Your task to perform on an android device: open app "Skype" (install if not already installed) Image 0: 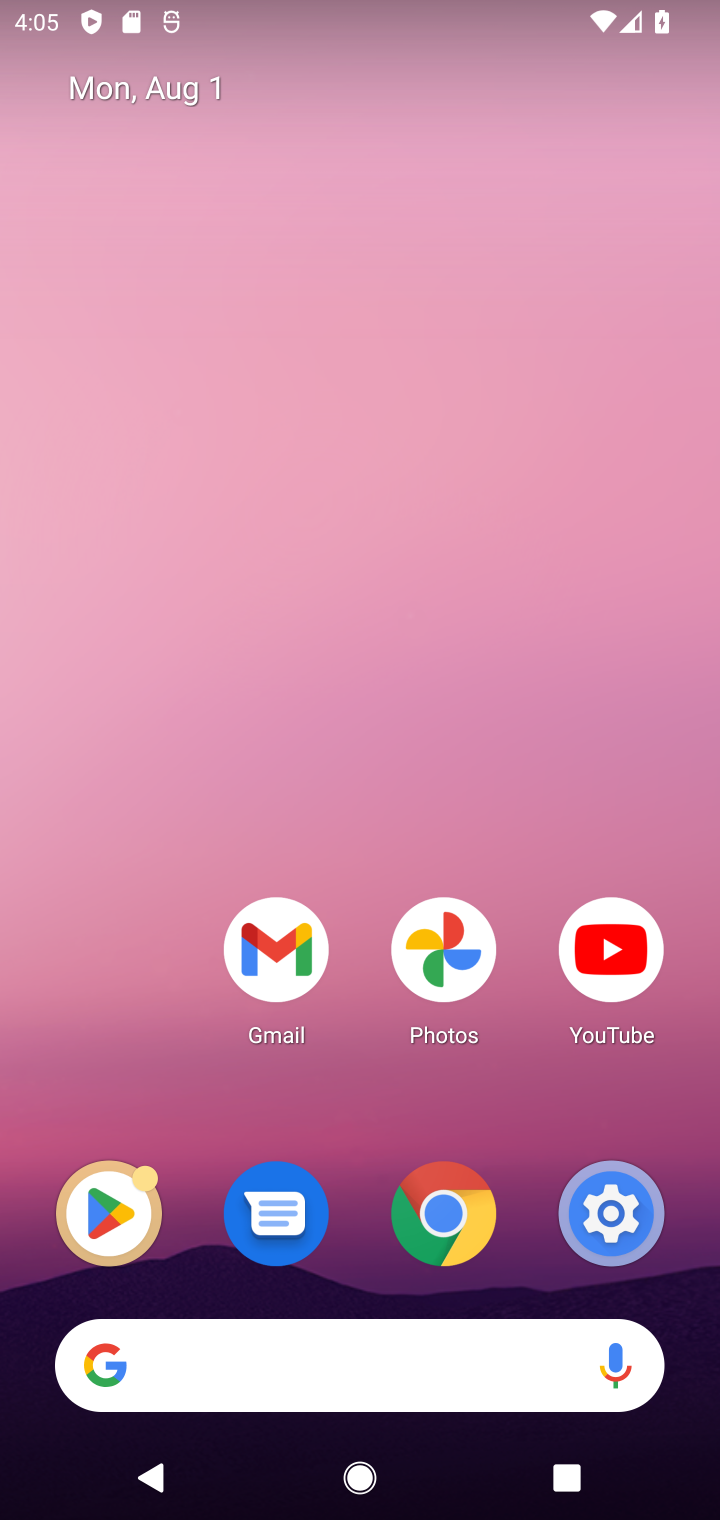
Step 0: drag from (537, 747) to (505, 1)
Your task to perform on an android device: open app "Skype" (install if not already installed) Image 1: 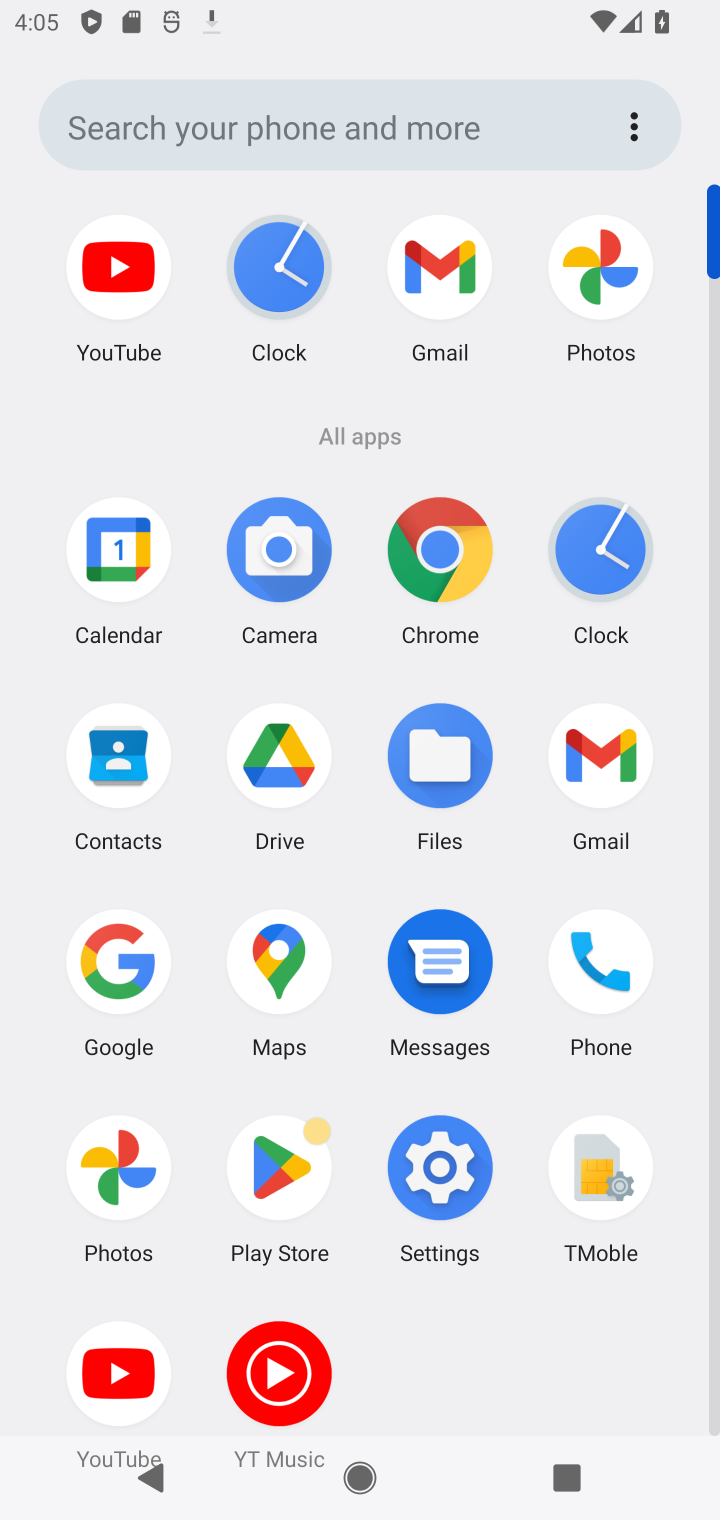
Step 1: click (276, 1165)
Your task to perform on an android device: open app "Skype" (install if not already installed) Image 2: 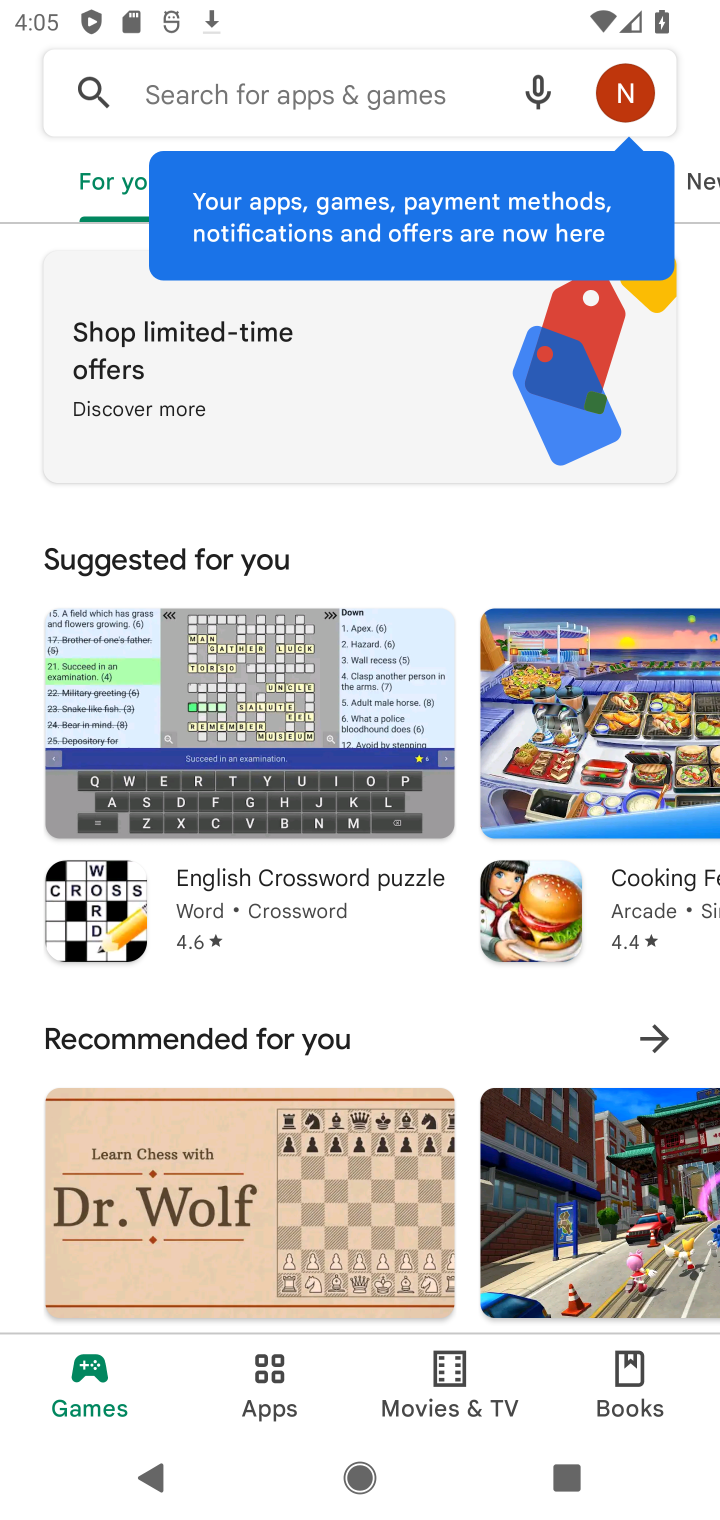
Step 2: click (419, 82)
Your task to perform on an android device: open app "Skype" (install if not already installed) Image 3: 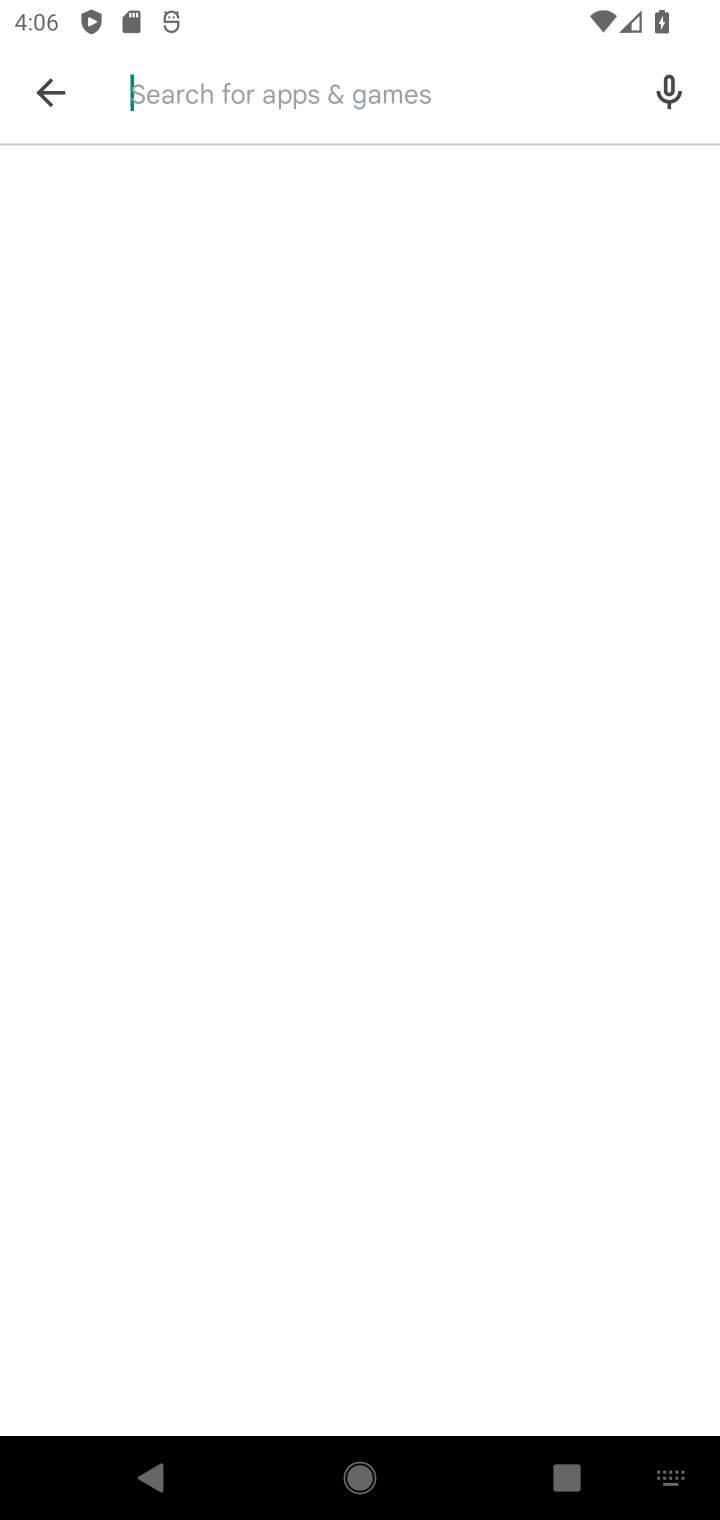
Step 3: type "Skype"
Your task to perform on an android device: open app "Skype" (install if not already installed) Image 4: 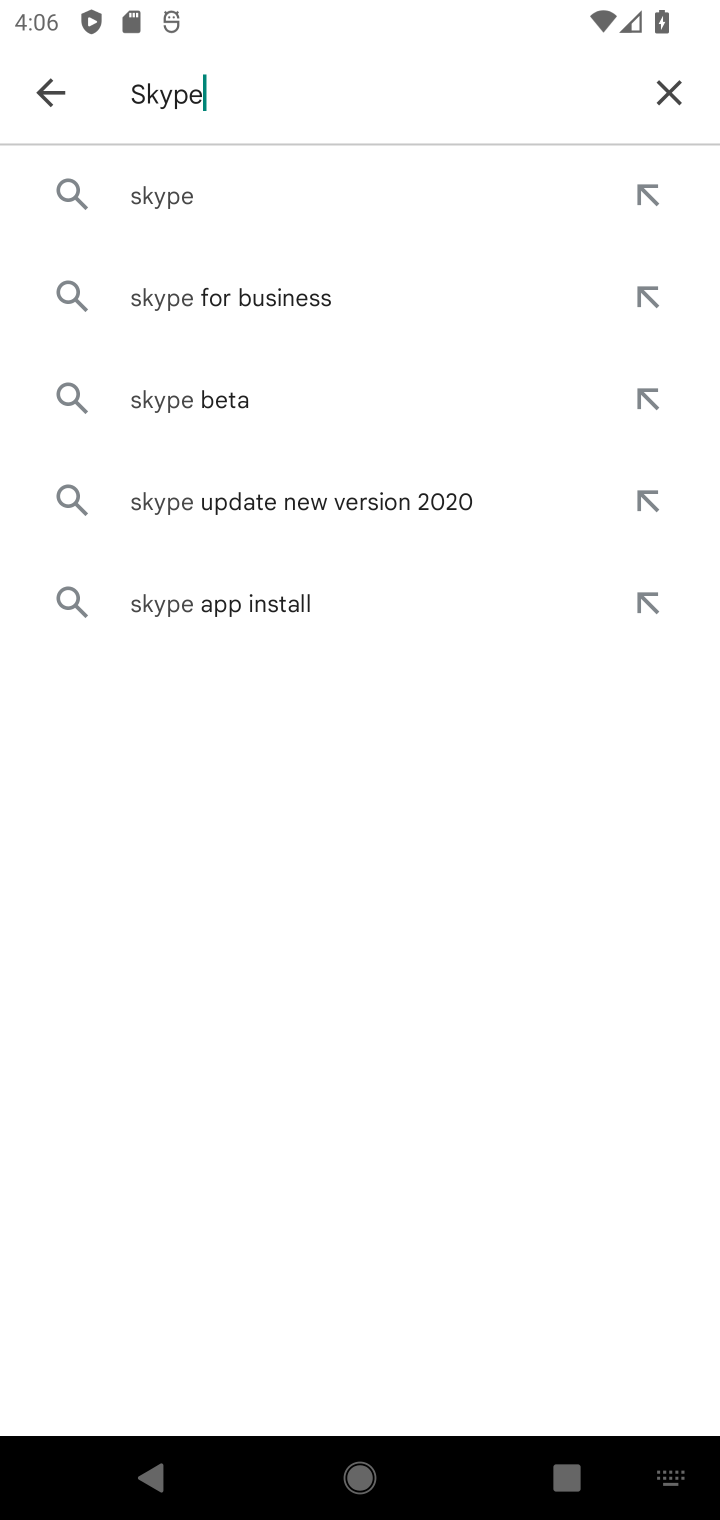
Step 4: press enter
Your task to perform on an android device: open app "Skype" (install if not already installed) Image 5: 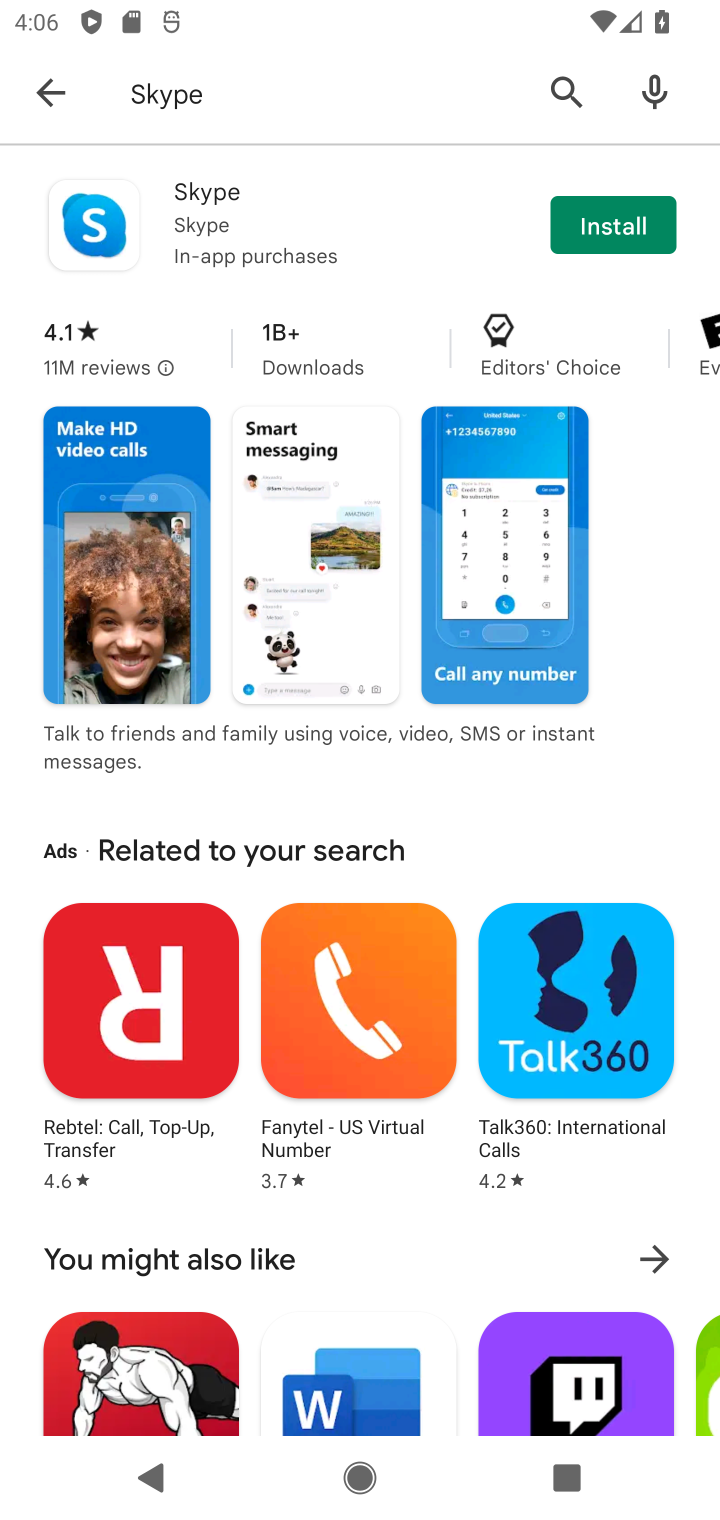
Step 5: click (623, 214)
Your task to perform on an android device: open app "Skype" (install if not already installed) Image 6: 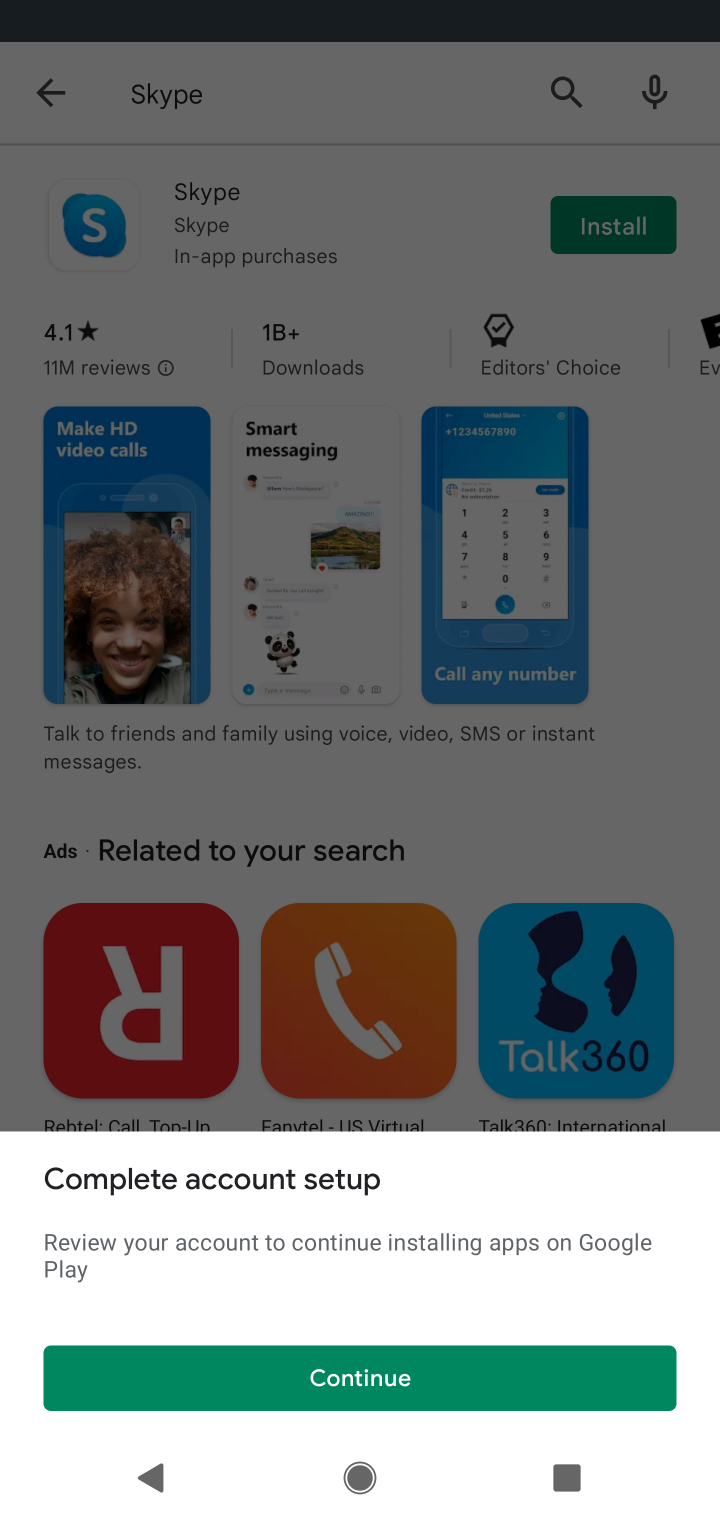
Step 6: click (570, 1380)
Your task to perform on an android device: open app "Skype" (install if not already installed) Image 7: 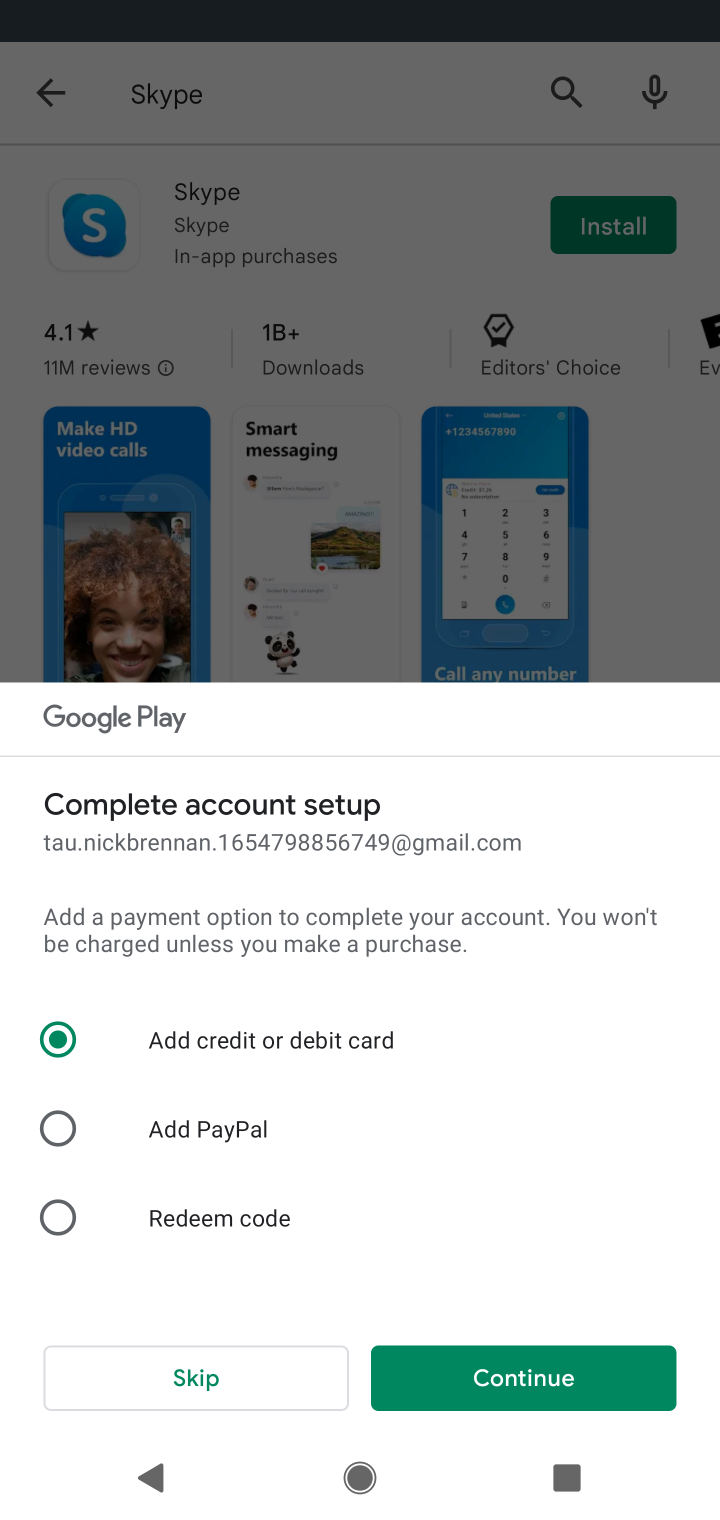
Step 7: click (194, 1395)
Your task to perform on an android device: open app "Skype" (install if not already installed) Image 8: 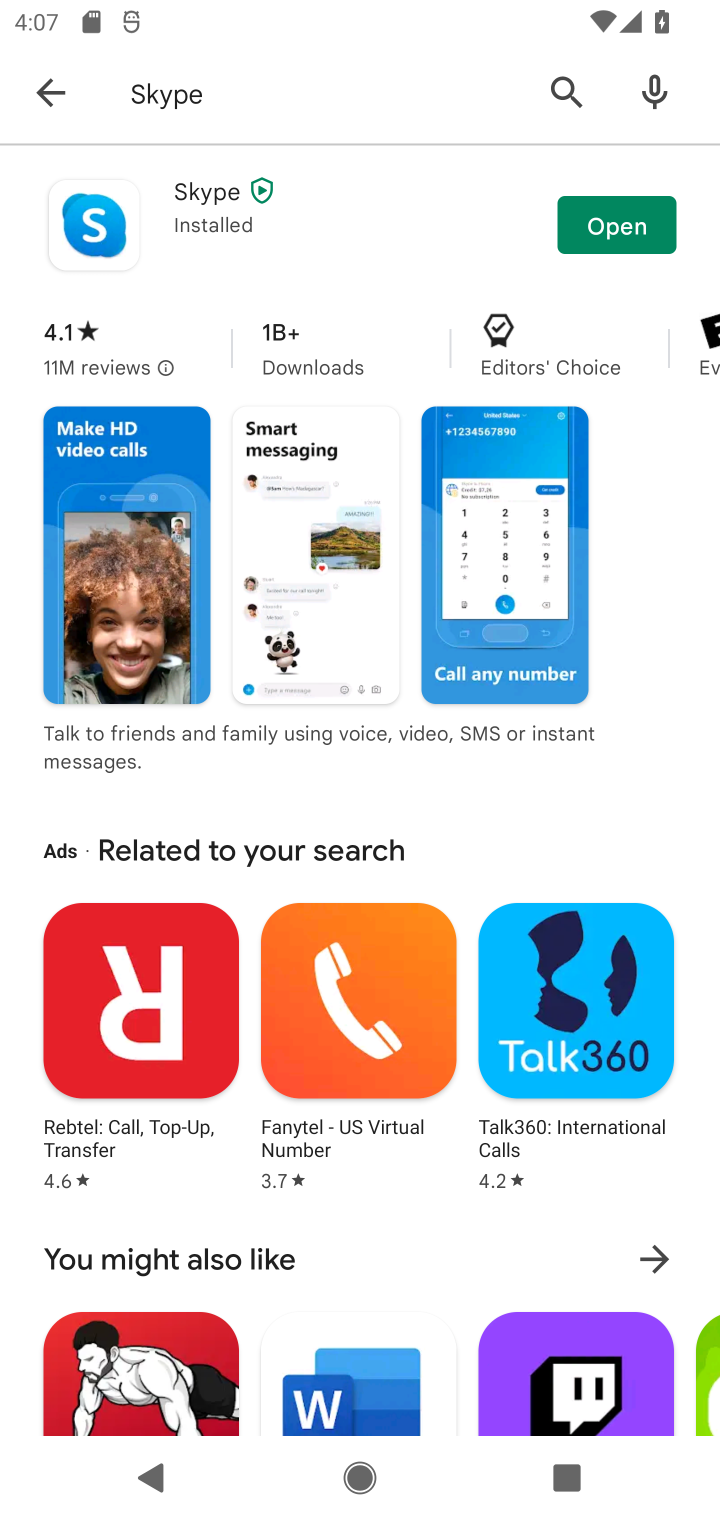
Step 8: click (590, 208)
Your task to perform on an android device: open app "Skype" (install if not already installed) Image 9: 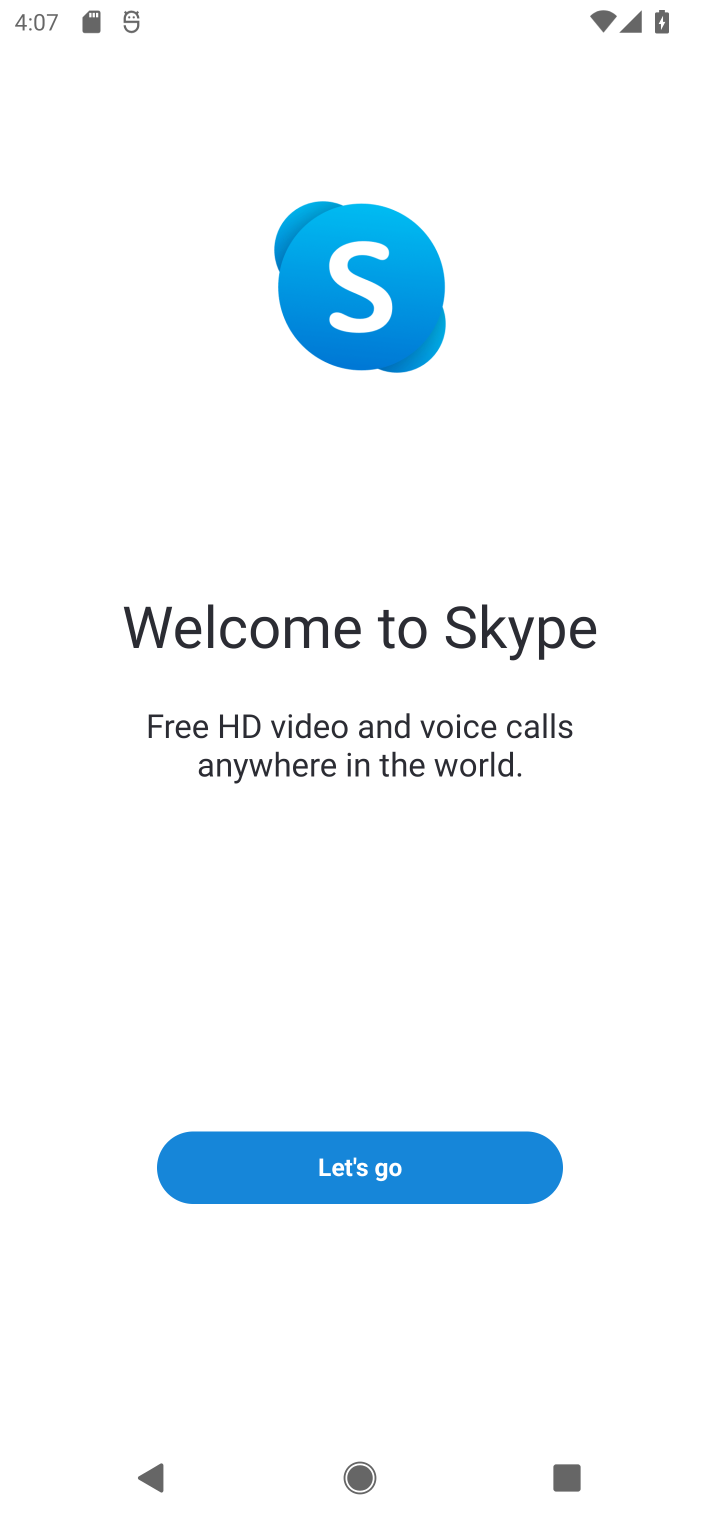
Step 9: task complete